Your task to perform on an android device: check data usage Image 0: 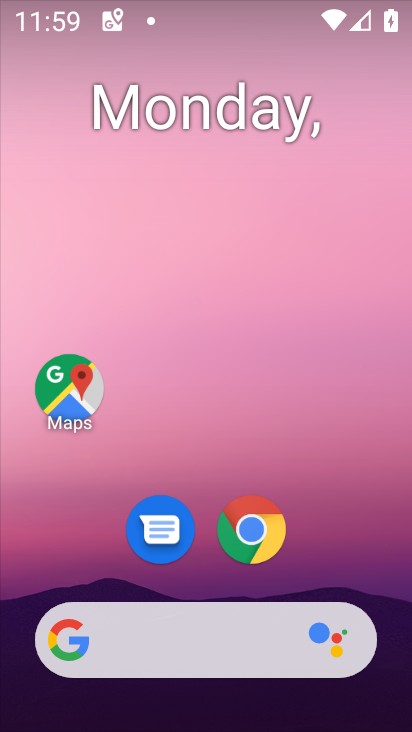
Step 0: drag from (249, 685) to (275, 156)
Your task to perform on an android device: check data usage Image 1: 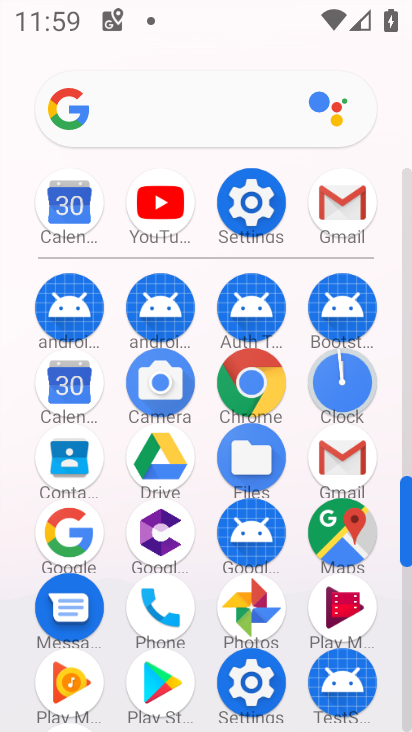
Step 1: click (260, 192)
Your task to perform on an android device: check data usage Image 2: 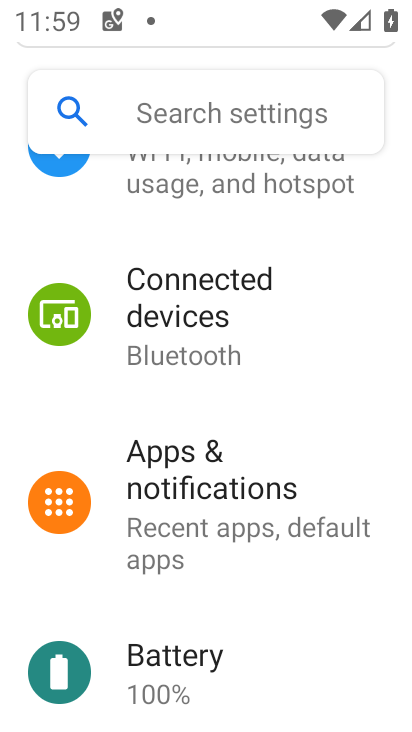
Step 2: click (201, 116)
Your task to perform on an android device: check data usage Image 3: 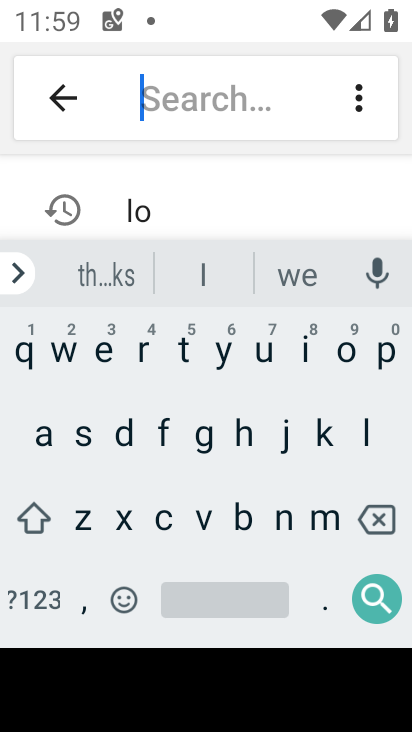
Step 3: click (122, 427)
Your task to perform on an android device: check data usage Image 4: 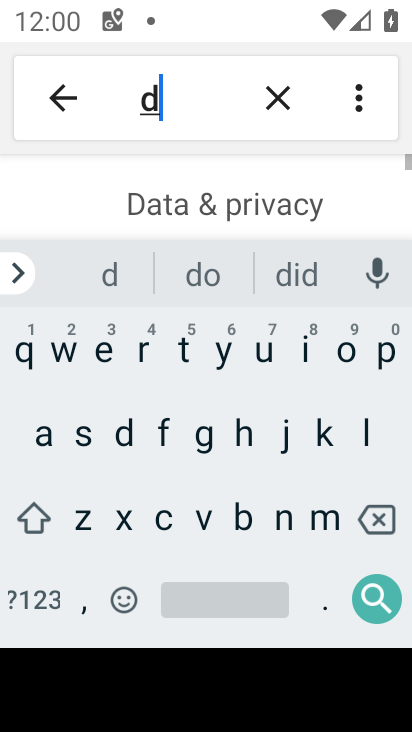
Step 4: click (51, 436)
Your task to perform on an android device: check data usage Image 5: 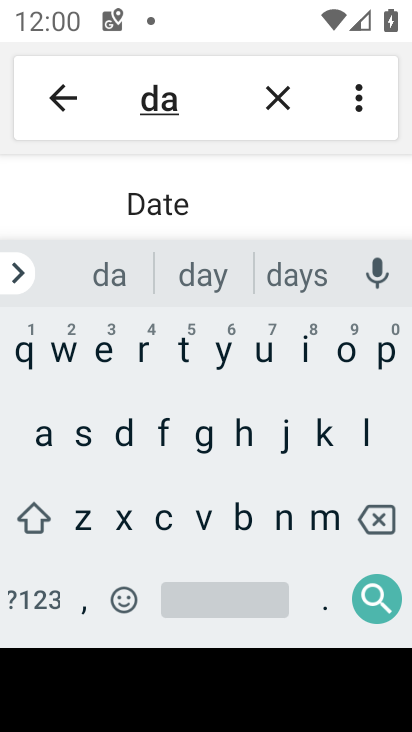
Step 5: click (180, 355)
Your task to perform on an android device: check data usage Image 6: 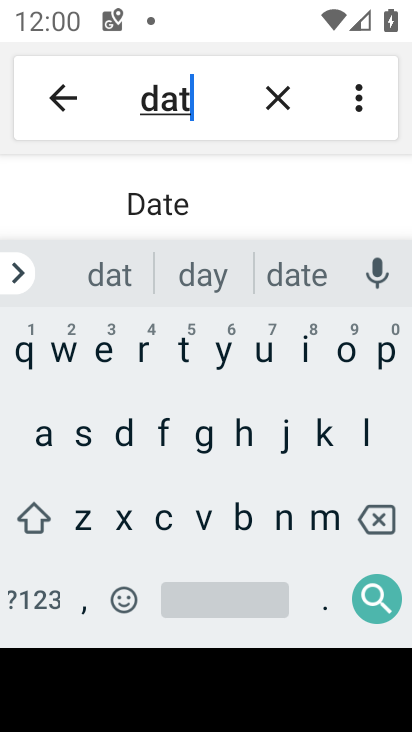
Step 6: click (44, 439)
Your task to perform on an android device: check data usage Image 7: 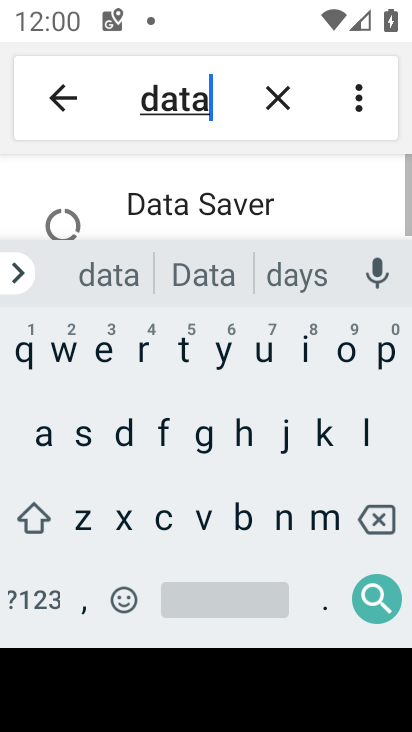
Step 7: click (235, 587)
Your task to perform on an android device: check data usage Image 8: 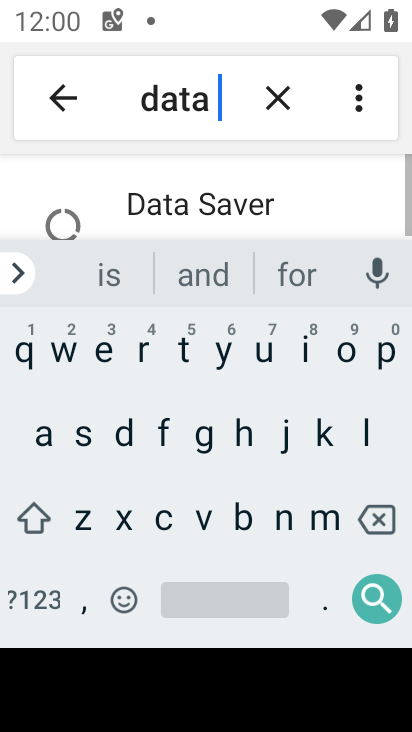
Step 8: click (258, 345)
Your task to perform on an android device: check data usage Image 9: 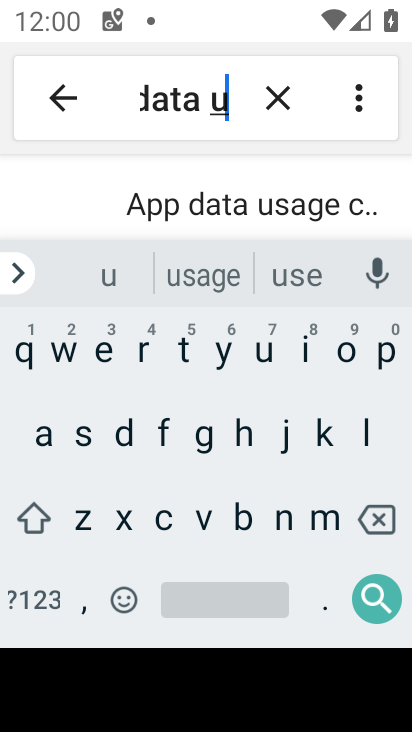
Step 9: press back button
Your task to perform on an android device: check data usage Image 10: 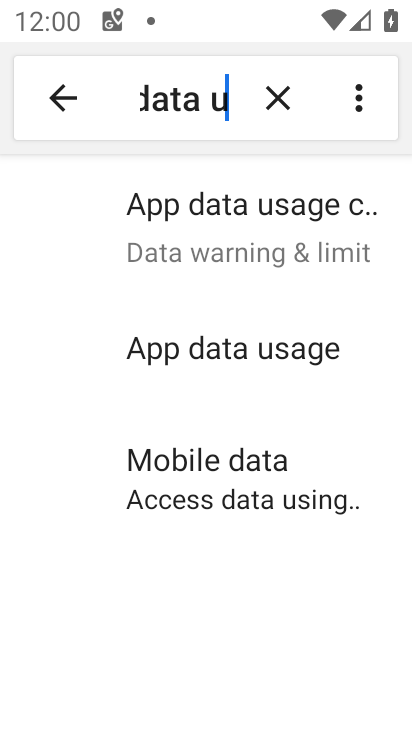
Step 10: click (335, 360)
Your task to perform on an android device: check data usage Image 11: 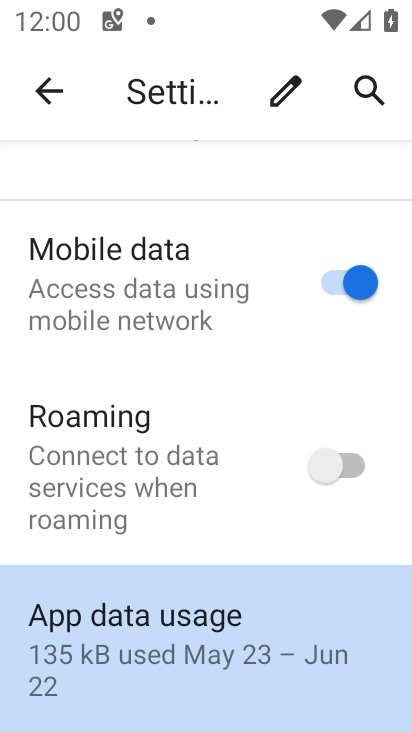
Step 11: click (196, 661)
Your task to perform on an android device: check data usage Image 12: 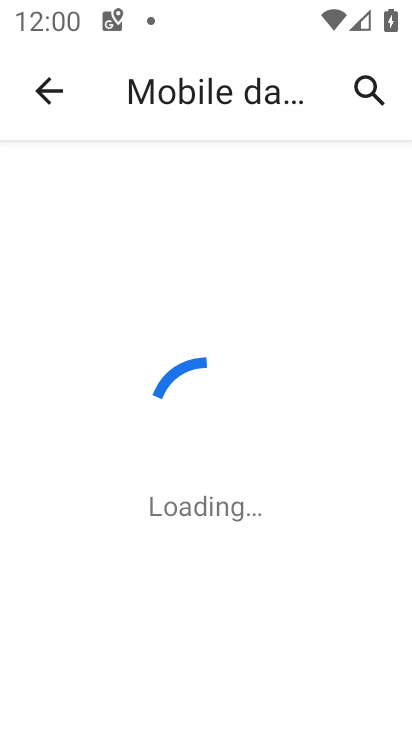
Step 12: task complete